Your task to perform on an android device: turn notification dots off Image 0: 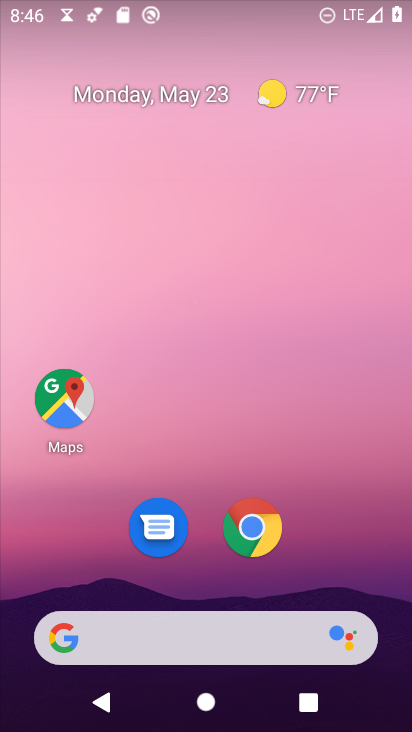
Step 0: drag from (277, 669) to (198, 306)
Your task to perform on an android device: turn notification dots off Image 1: 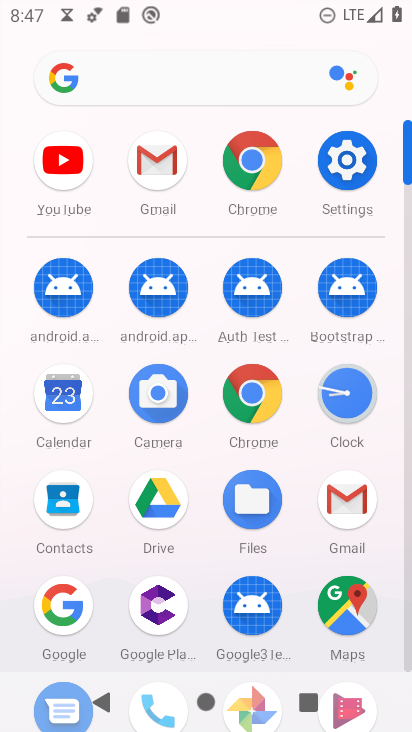
Step 1: click (345, 147)
Your task to perform on an android device: turn notification dots off Image 2: 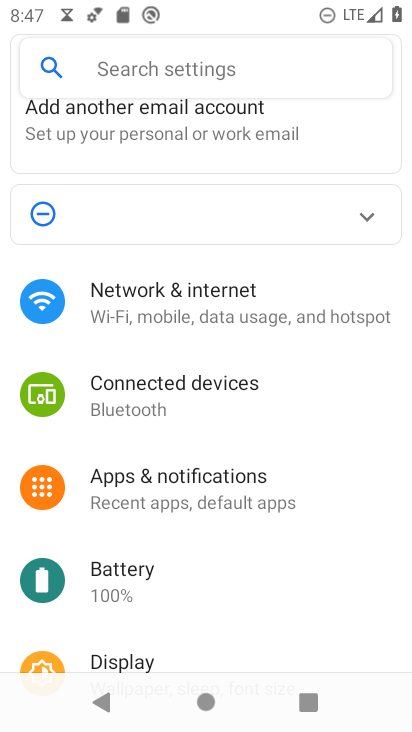
Step 2: click (160, 68)
Your task to perform on an android device: turn notification dots off Image 3: 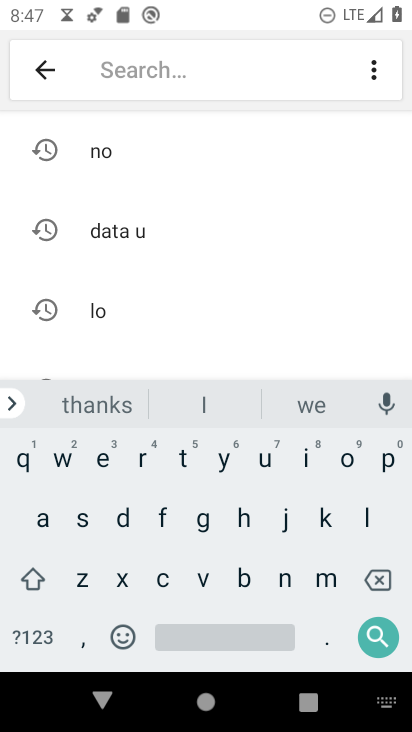
Step 3: click (113, 525)
Your task to perform on an android device: turn notification dots off Image 4: 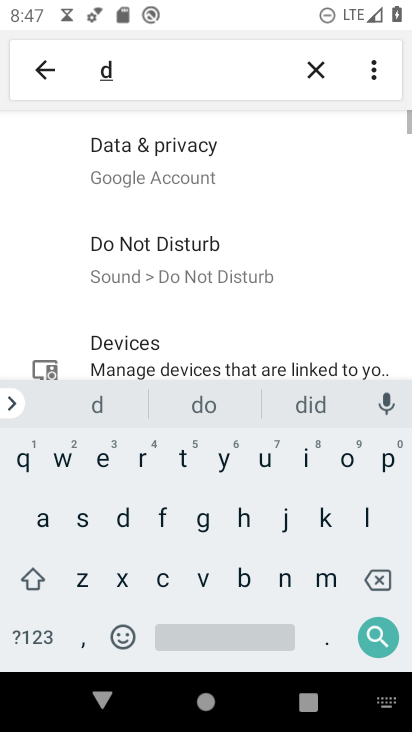
Step 4: click (347, 470)
Your task to perform on an android device: turn notification dots off Image 5: 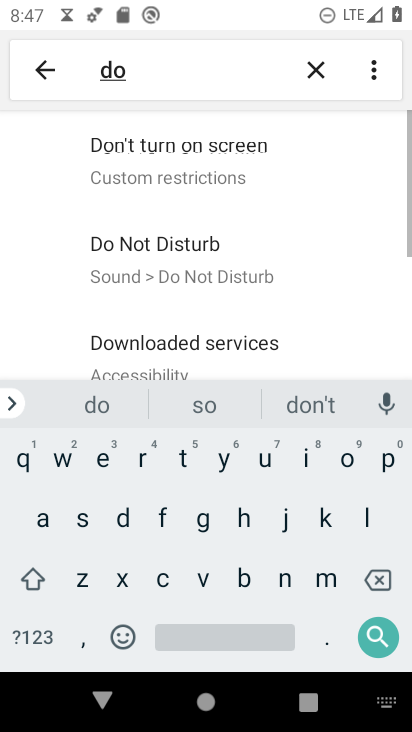
Step 5: click (186, 463)
Your task to perform on an android device: turn notification dots off Image 6: 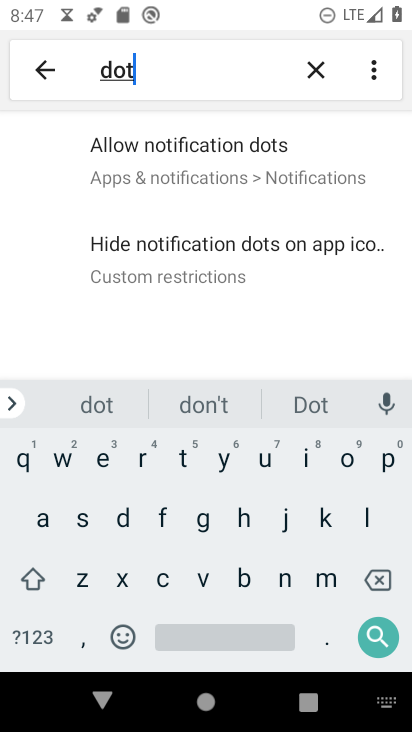
Step 6: click (307, 160)
Your task to perform on an android device: turn notification dots off Image 7: 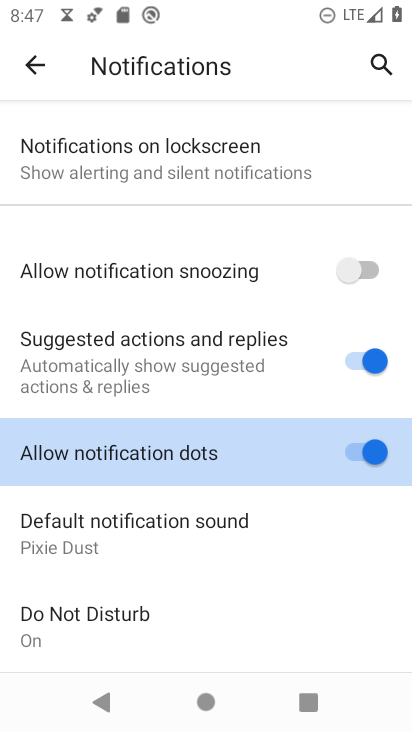
Step 7: click (362, 453)
Your task to perform on an android device: turn notification dots off Image 8: 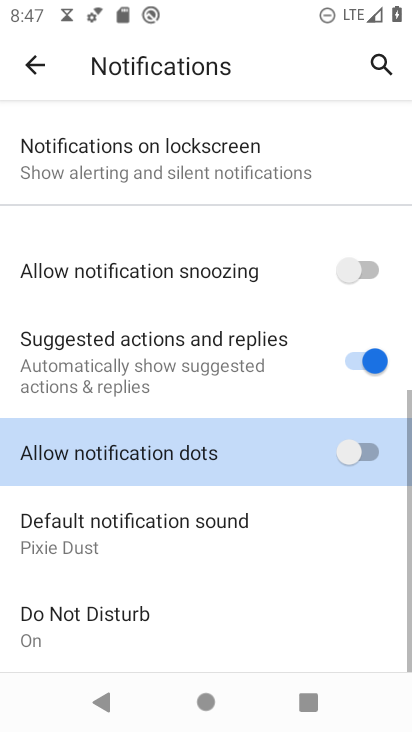
Step 8: task complete